Your task to perform on an android device: clear history in the chrome app Image 0: 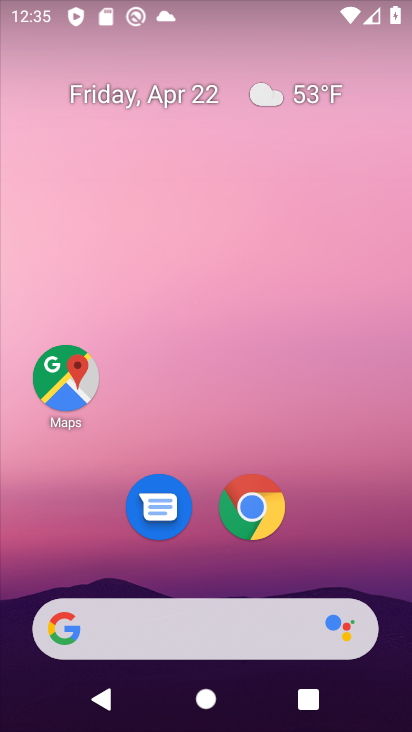
Step 0: click (262, 521)
Your task to perform on an android device: clear history in the chrome app Image 1: 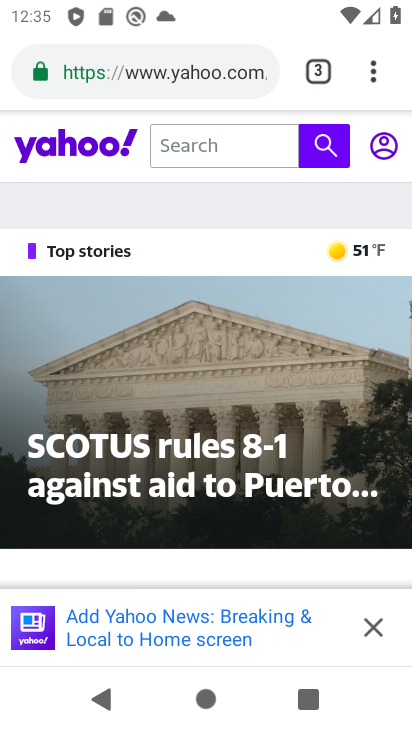
Step 1: drag from (373, 73) to (120, 487)
Your task to perform on an android device: clear history in the chrome app Image 2: 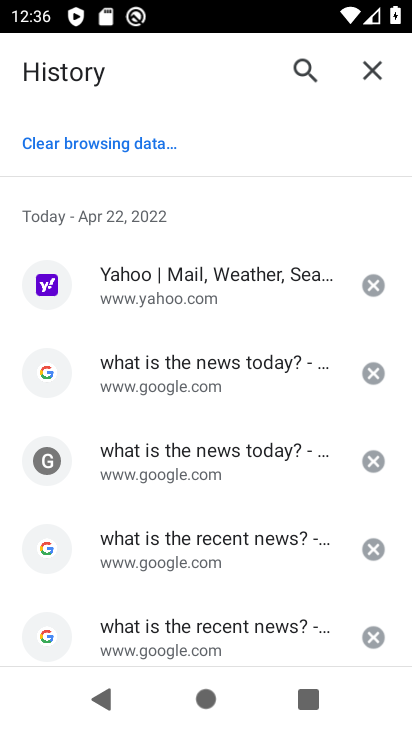
Step 2: click (107, 150)
Your task to perform on an android device: clear history in the chrome app Image 3: 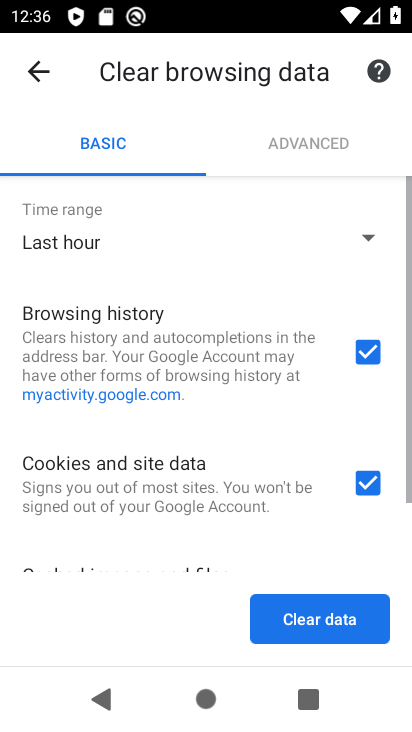
Step 3: click (309, 625)
Your task to perform on an android device: clear history in the chrome app Image 4: 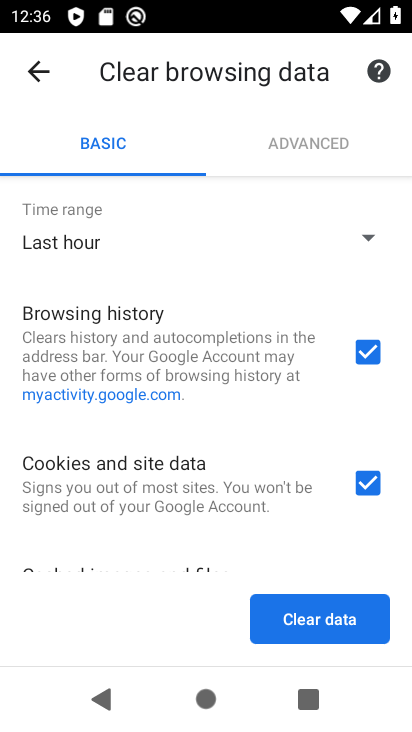
Step 4: click (309, 625)
Your task to perform on an android device: clear history in the chrome app Image 5: 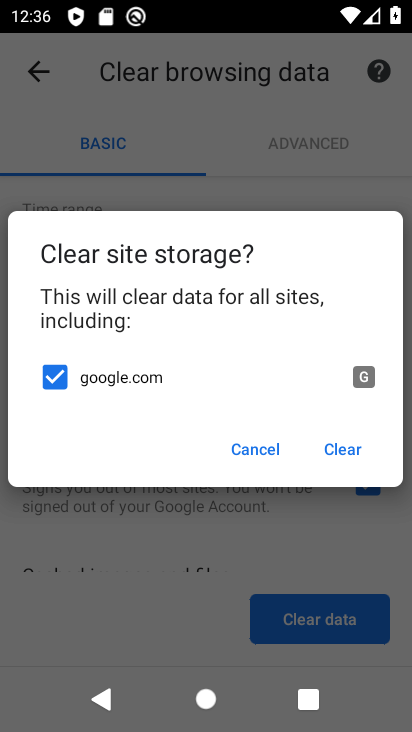
Step 5: click (337, 452)
Your task to perform on an android device: clear history in the chrome app Image 6: 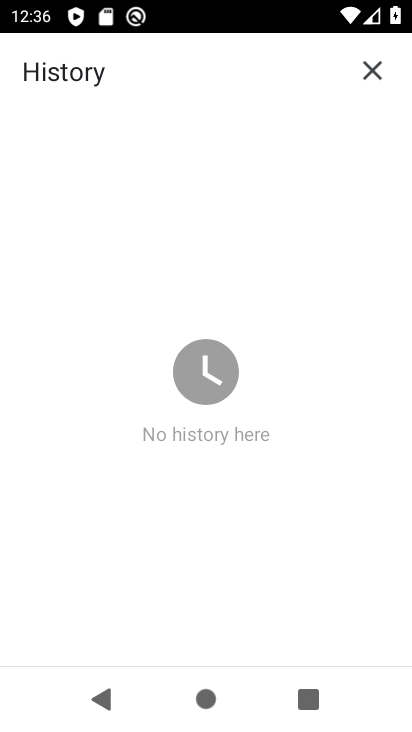
Step 6: task complete